Your task to perform on an android device: turn on the 12-hour format for clock Image 0: 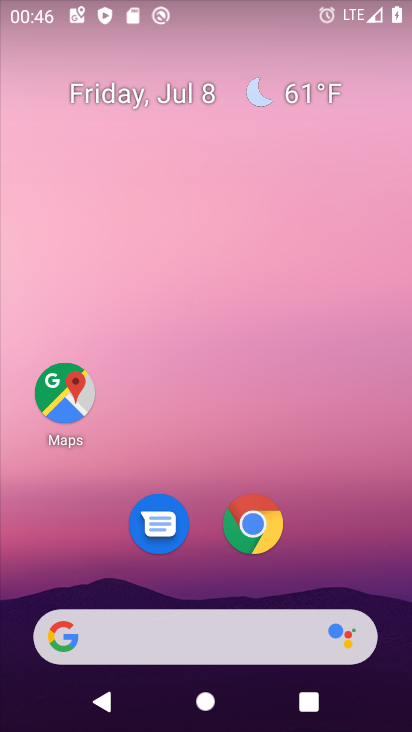
Step 0: drag from (331, 549) to (323, 61)
Your task to perform on an android device: turn on the 12-hour format for clock Image 1: 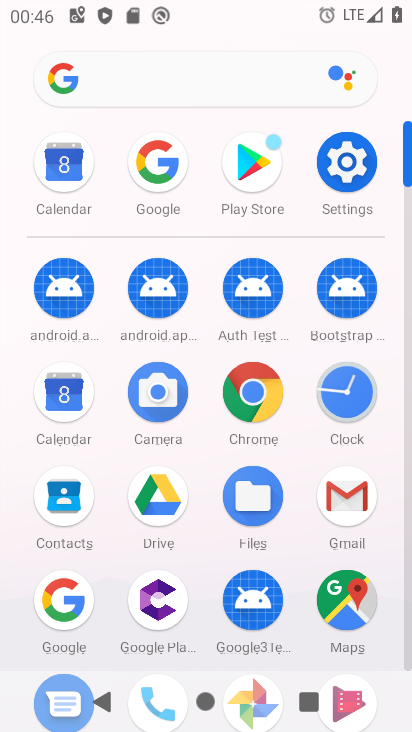
Step 1: click (356, 390)
Your task to perform on an android device: turn on the 12-hour format for clock Image 2: 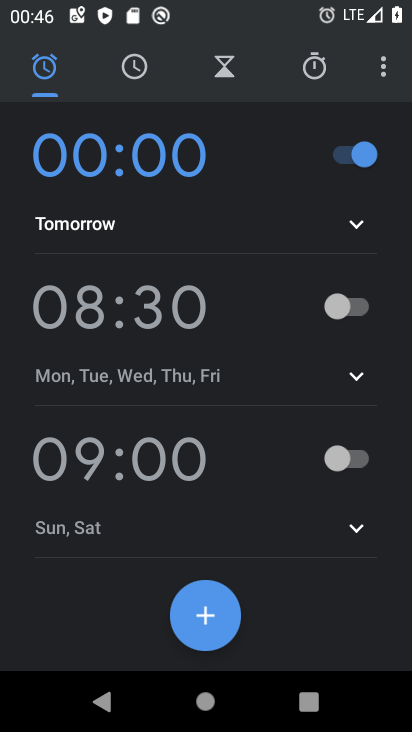
Step 2: click (385, 74)
Your task to perform on an android device: turn on the 12-hour format for clock Image 3: 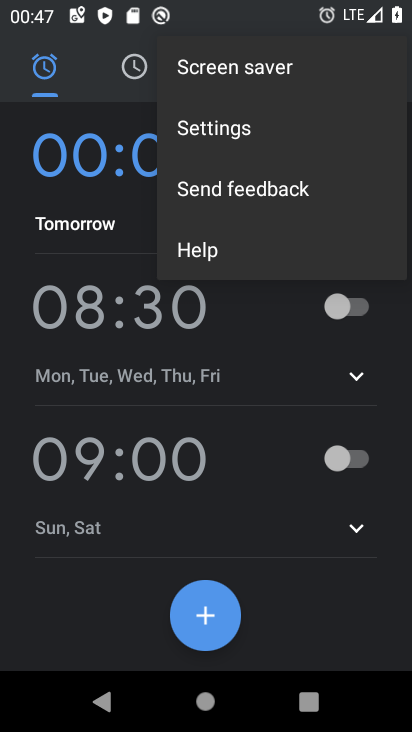
Step 3: click (235, 129)
Your task to perform on an android device: turn on the 12-hour format for clock Image 4: 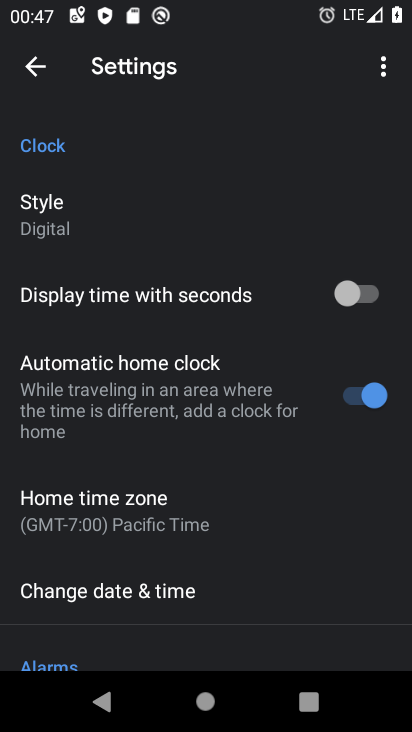
Step 4: click (212, 594)
Your task to perform on an android device: turn on the 12-hour format for clock Image 5: 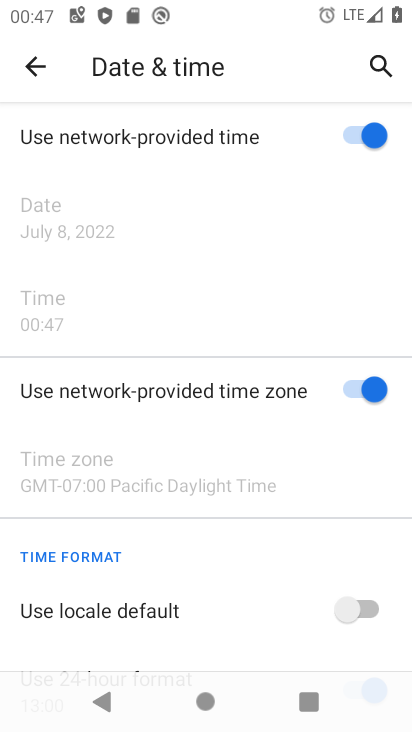
Step 5: drag from (250, 614) to (252, 424)
Your task to perform on an android device: turn on the 12-hour format for clock Image 6: 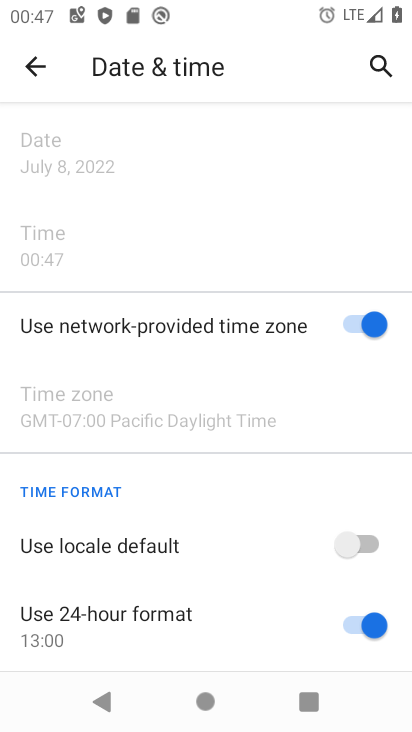
Step 6: click (352, 622)
Your task to perform on an android device: turn on the 12-hour format for clock Image 7: 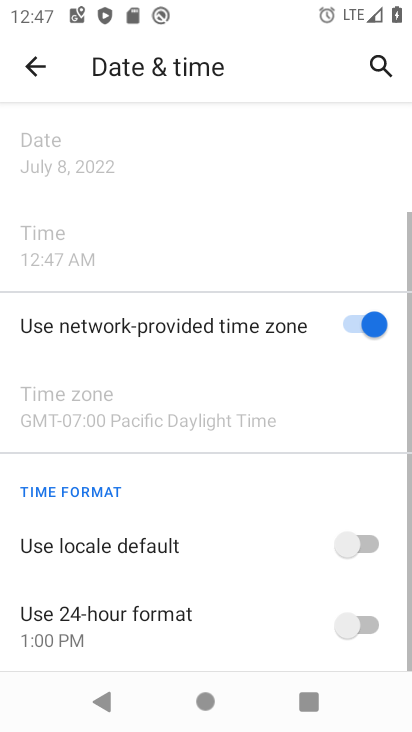
Step 7: click (363, 538)
Your task to perform on an android device: turn on the 12-hour format for clock Image 8: 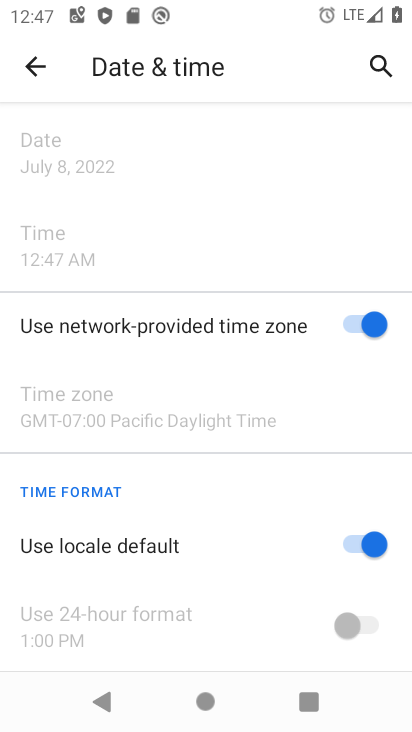
Step 8: task complete